Your task to perform on an android device: toggle sleep mode Image 0: 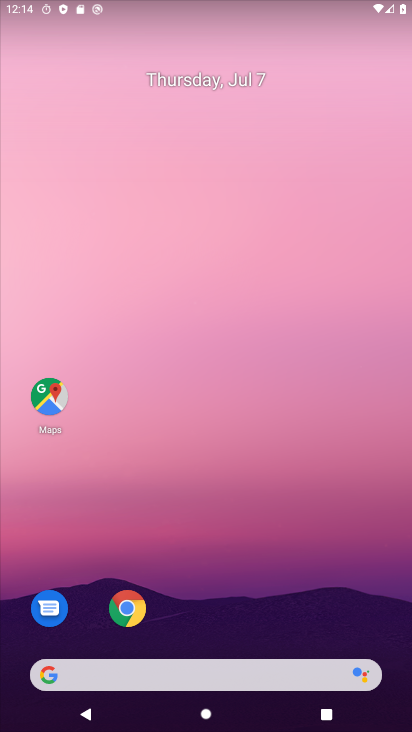
Step 0: drag from (329, 663) to (369, 60)
Your task to perform on an android device: toggle sleep mode Image 1: 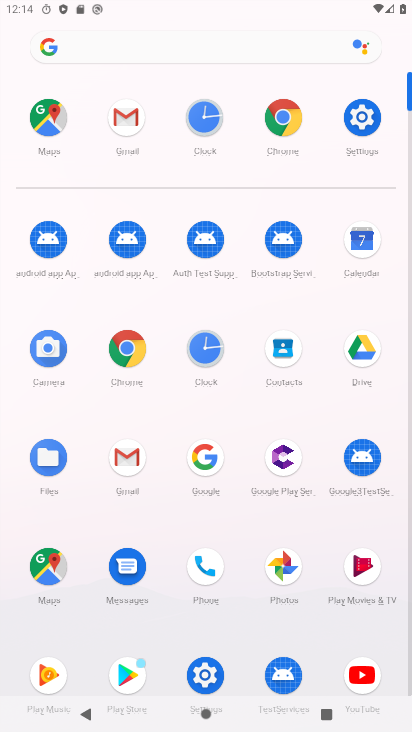
Step 1: click (361, 116)
Your task to perform on an android device: toggle sleep mode Image 2: 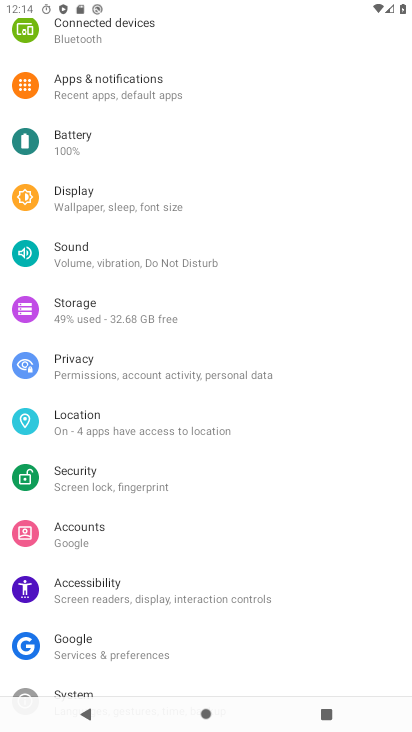
Step 2: drag from (162, 257) to (172, 571)
Your task to perform on an android device: toggle sleep mode Image 3: 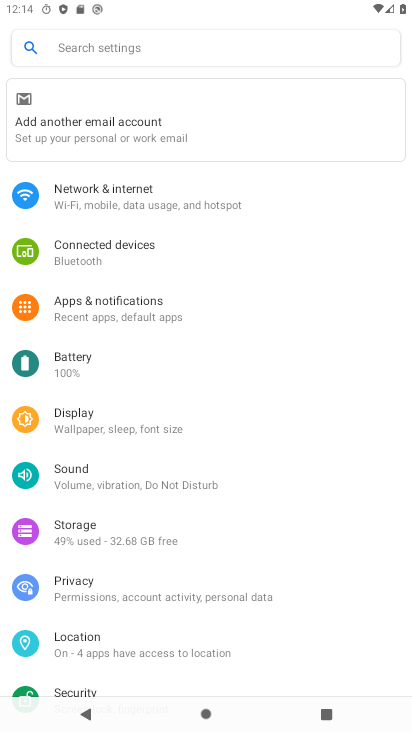
Step 3: click (115, 425)
Your task to perform on an android device: toggle sleep mode Image 4: 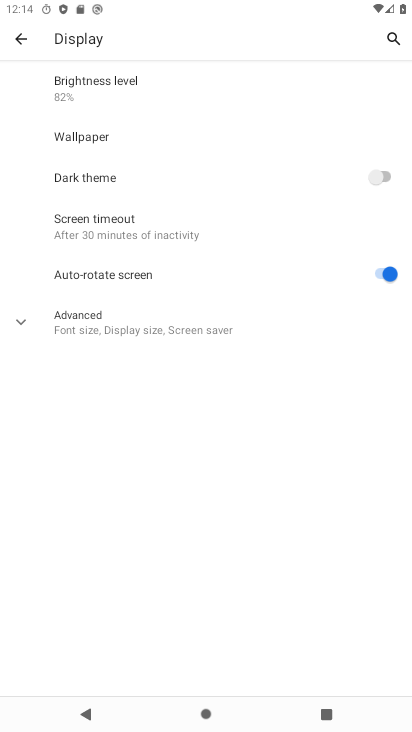
Step 4: task complete